Your task to perform on an android device: manage bookmarks in the chrome app Image 0: 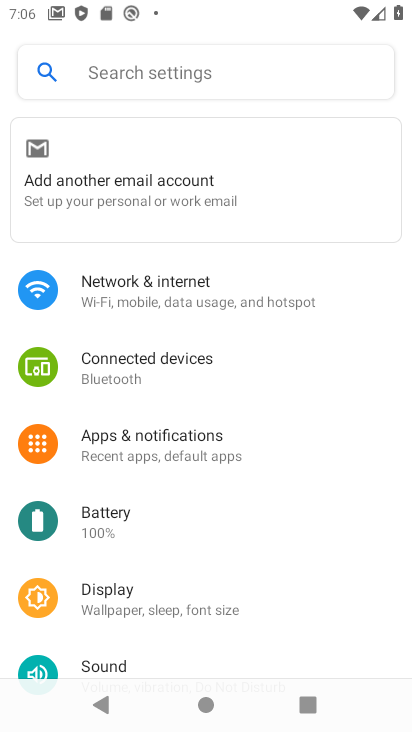
Step 0: press home button
Your task to perform on an android device: manage bookmarks in the chrome app Image 1: 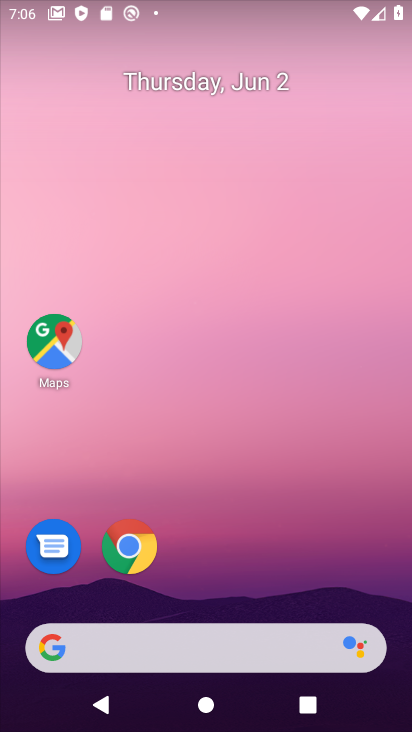
Step 1: click (142, 538)
Your task to perform on an android device: manage bookmarks in the chrome app Image 2: 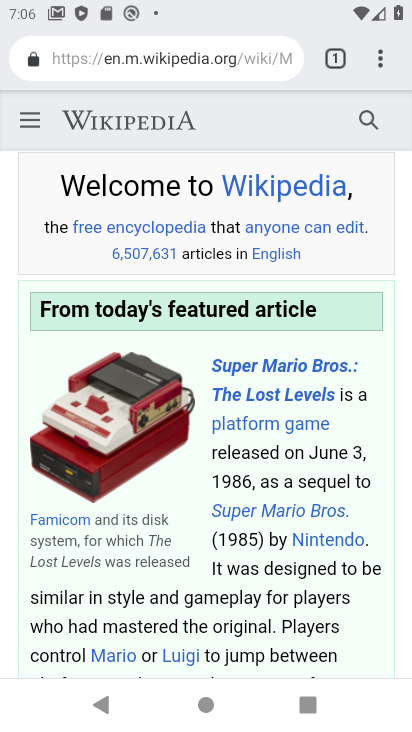
Step 2: click (372, 72)
Your task to perform on an android device: manage bookmarks in the chrome app Image 3: 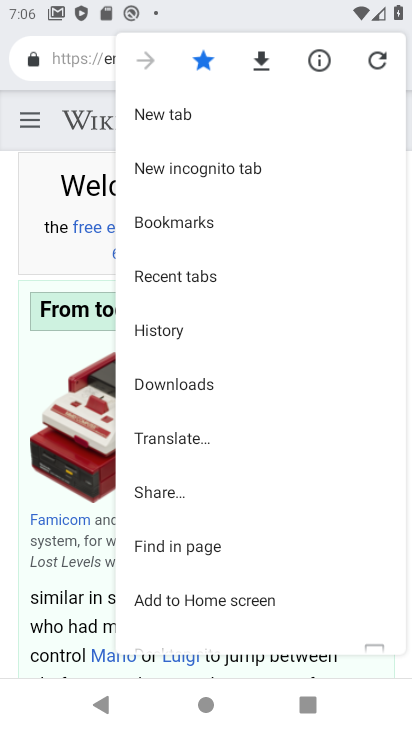
Step 3: click (170, 226)
Your task to perform on an android device: manage bookmarks in the chrome app Image 4: 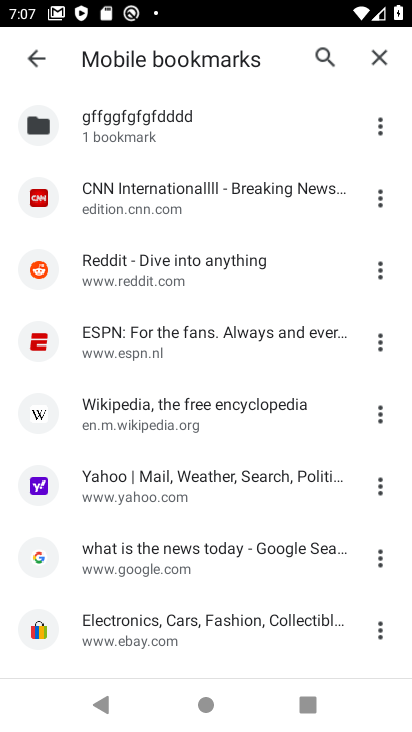
Step 4: task complete